Your task to perform on an android device: see tabs open on other devices in the chrome app Image 0: 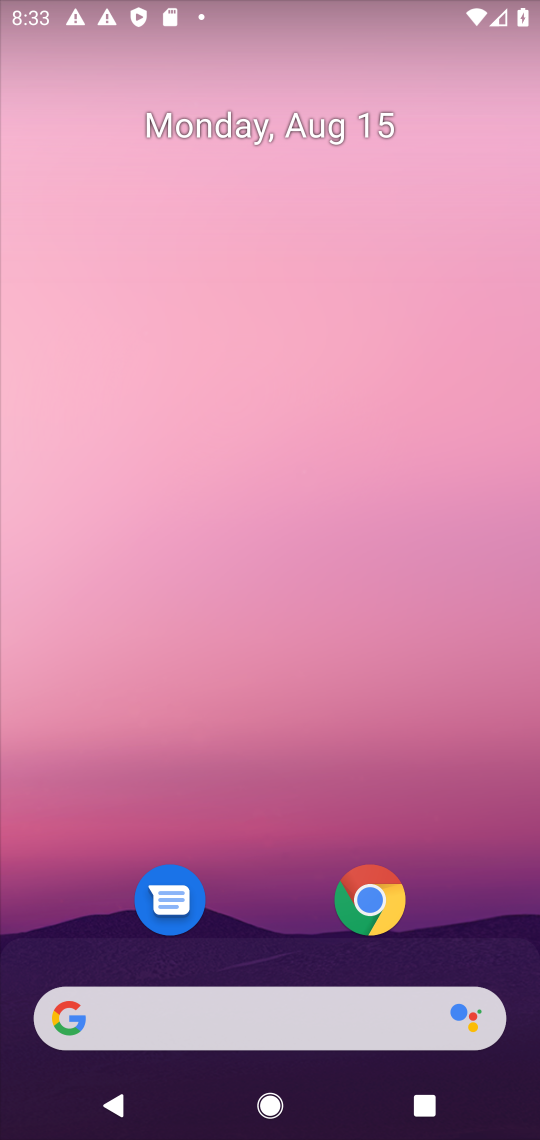
Step 0: click (389, 908)
Your task to perform on an android device: see tabs open on other devices in the chrome app Image 1: 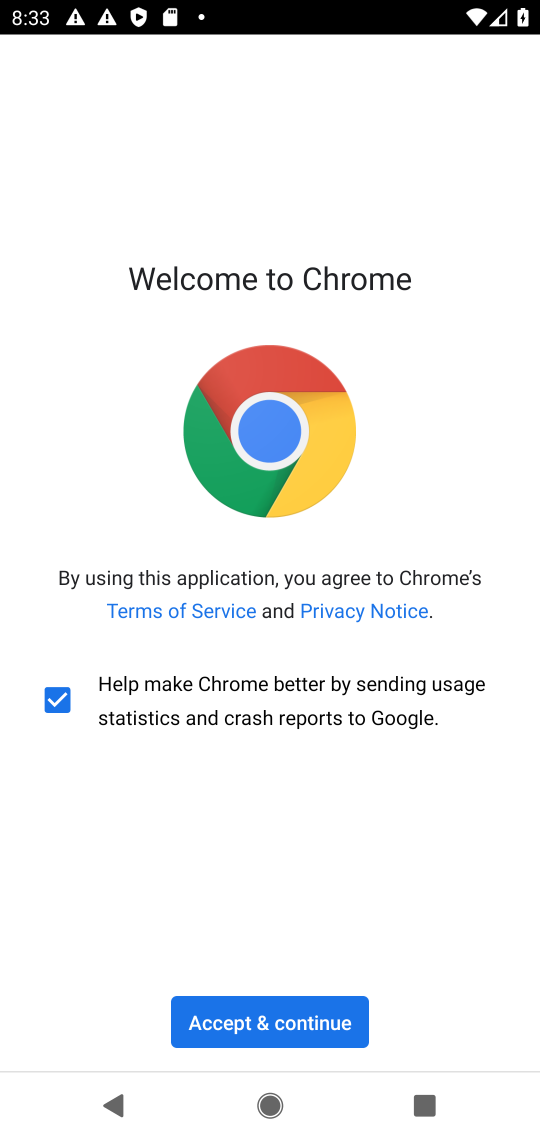
Step 1: click (344, 1021)
Your task to perform on an android device: see tabs open on other devices in the chrome app Image 2: 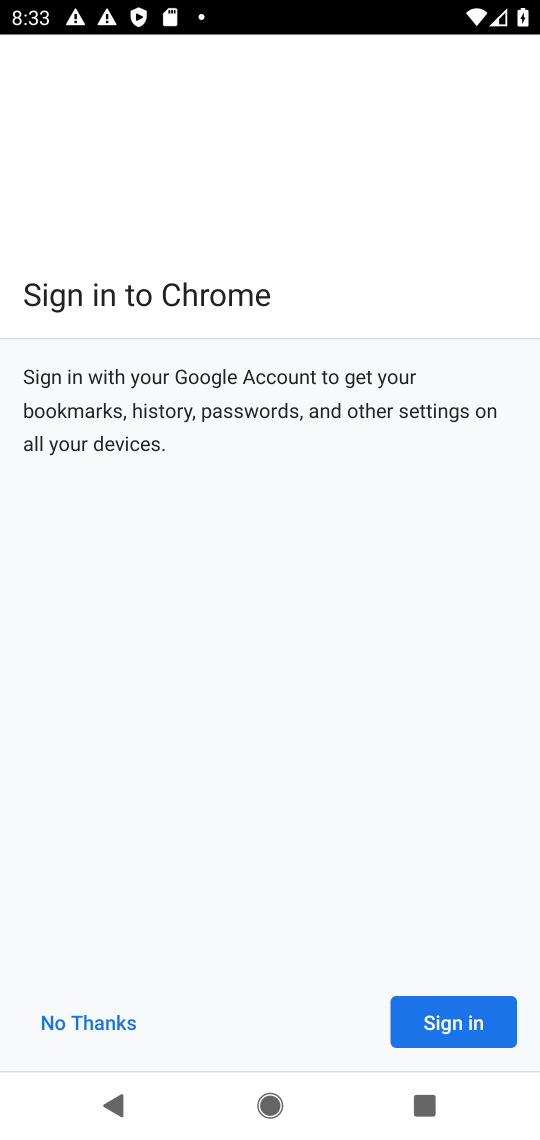
Step 2: click (468, 1027)
Your task to perform on an android device: see tabs open on other devices in the chrome app Image 3: 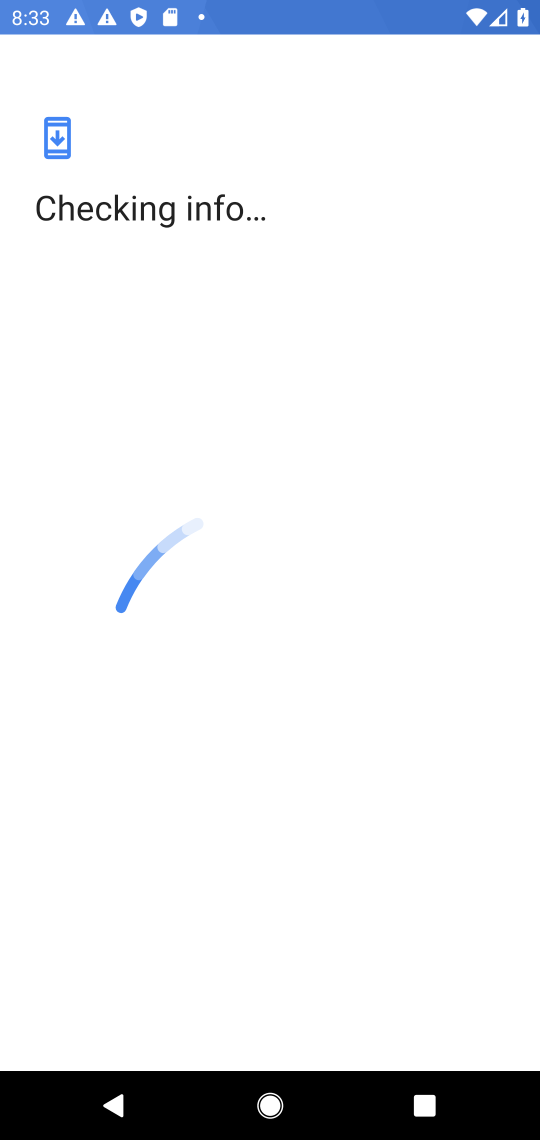
Step 3: press back button
Your task to perform on an android device: see tabs open on other devices in the chrome app Image 4: 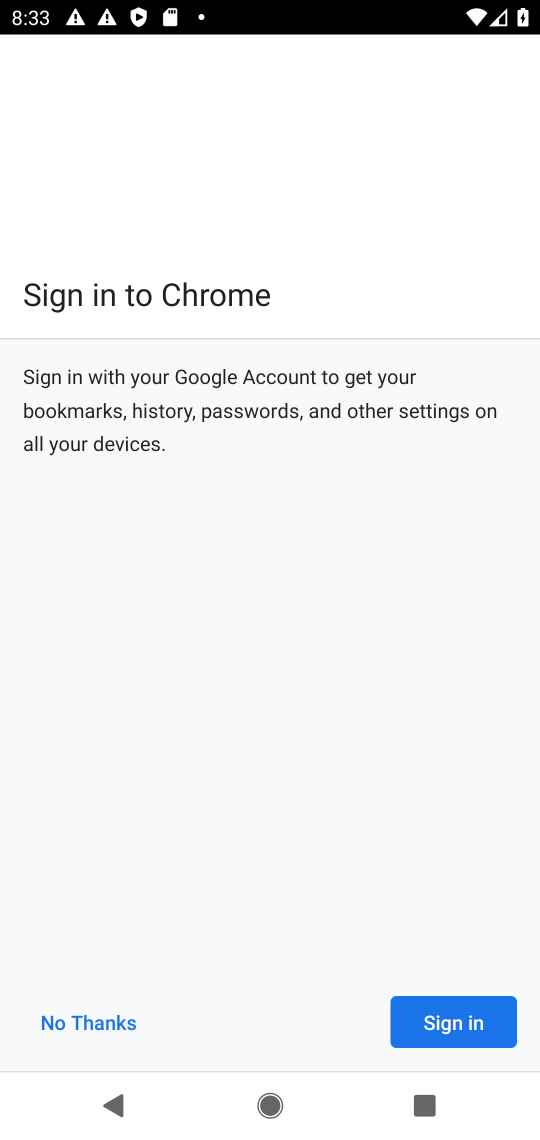
Step 4: click (44, 1017)
Your task to perform on an android device: see tabs open on other devices in the chrome app Image 5: 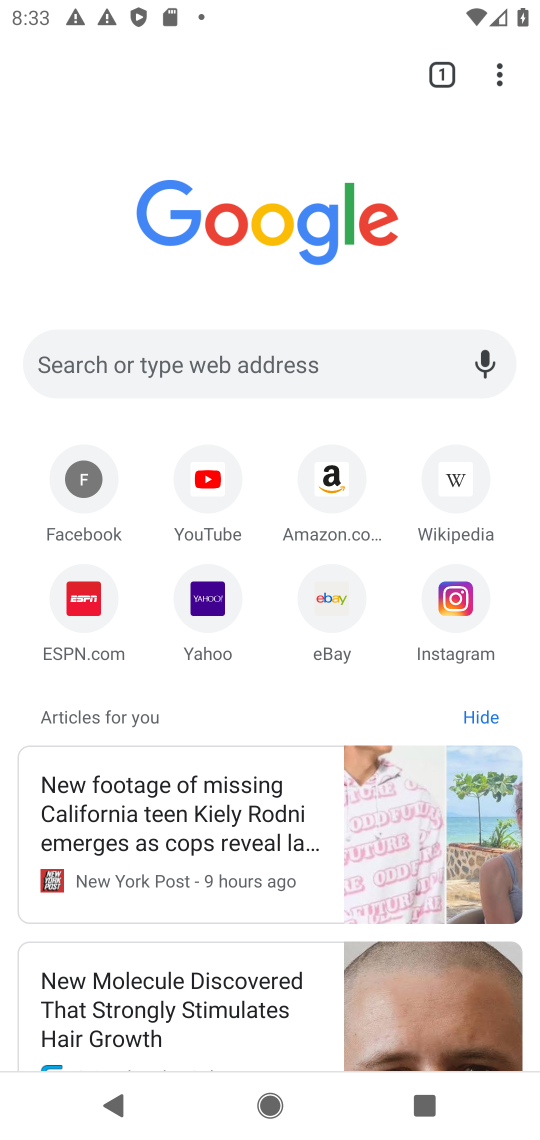
Step 5: click (508, 68)
Your task to perform on an android device: see tabs open on other devices in the chrome app Image 6: 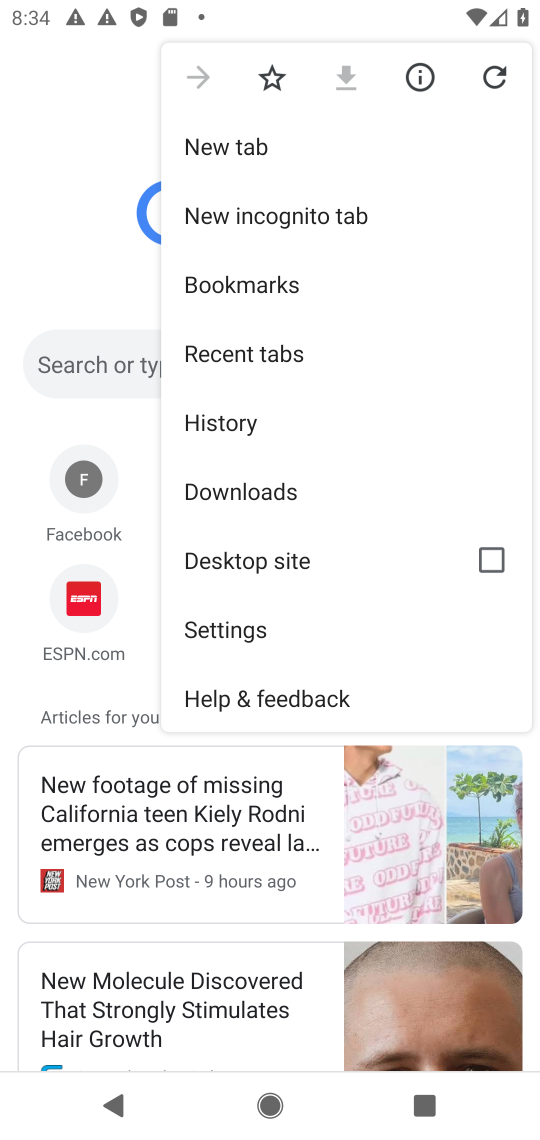
Step 6: click (256, 360)
Your task to perform on an android device: see tabs open on other devices in the chrome app Image 7: 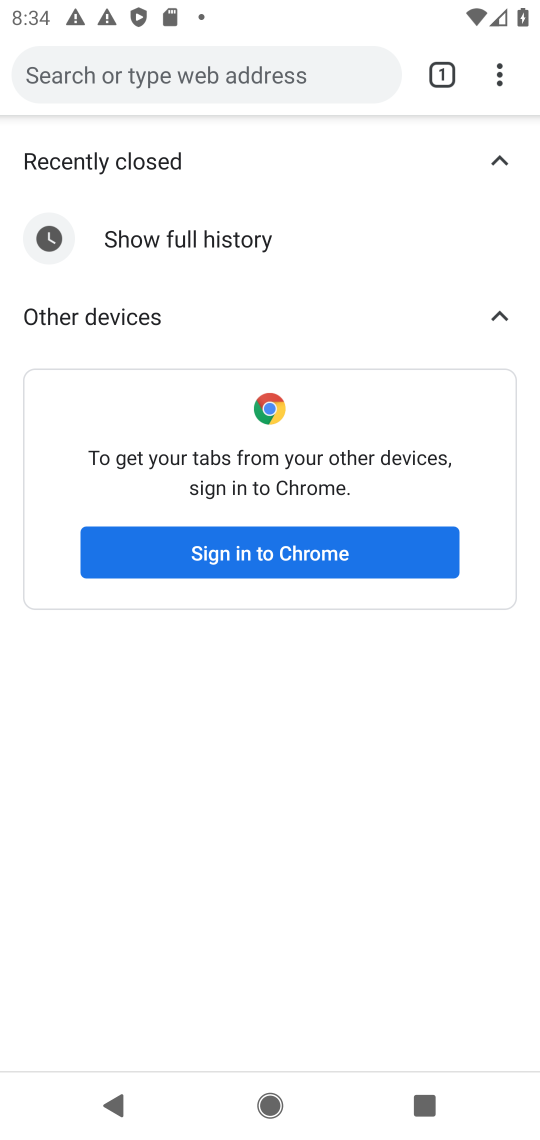
Step 7: task complete